Your task to perform on an android device: Open battery settings Image 0: 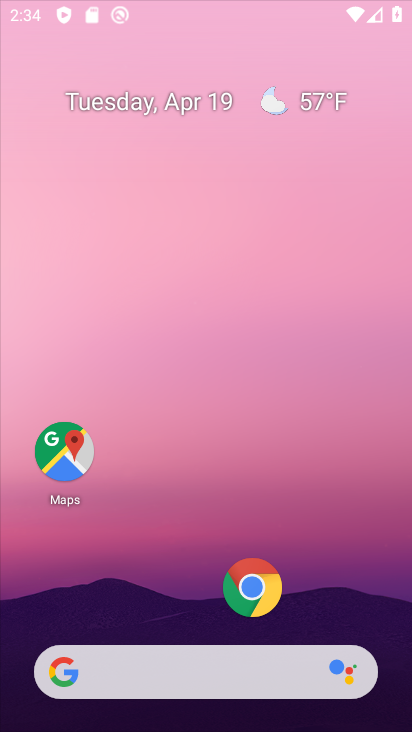
Step 0: click (246, 586)
Your task to perform on an android device: Open battery settings Image 1: 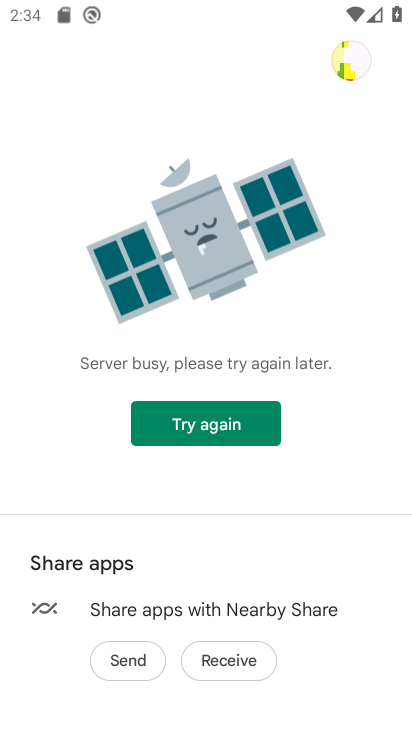
Step 1: press home button
Your task to perform on an android device: Open battery settings Image 2: 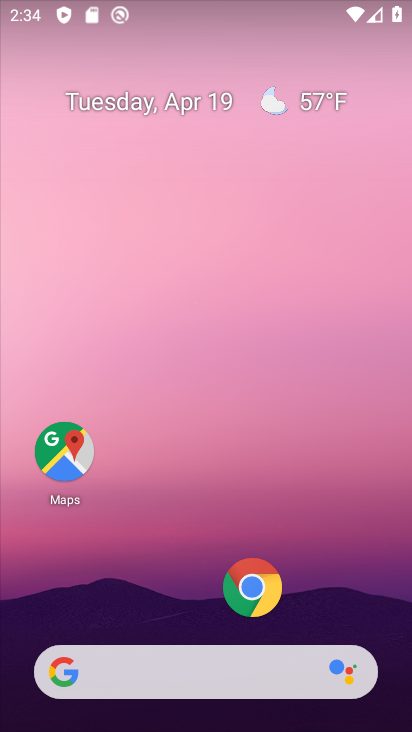
Step 2: drag from (154, 600) to (246, 155)
Your task to perform on an android device: Open battery settings Image 3: 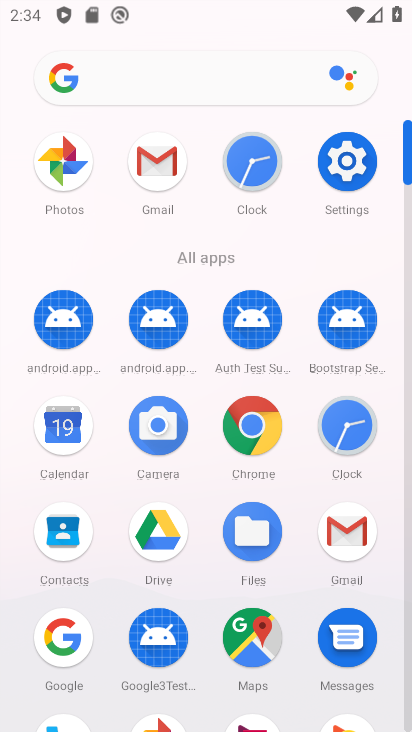
Step 3: click (352, 160)
Your task to perform on an android device: Open battery settings Image 4: 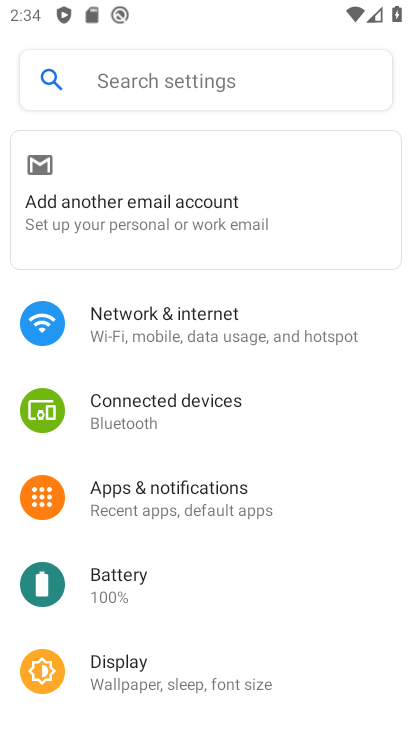
Step 4: click (143, 591)
Your task to perform on an android device: Open battery settings Image 5: 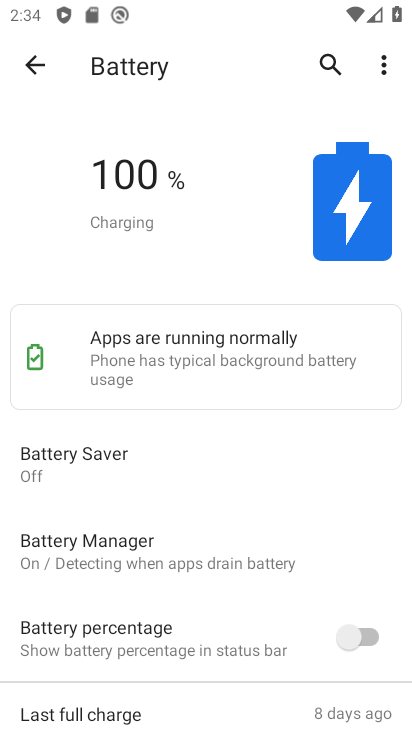
Step 5: click (388, 63)
Your task to perform on an android device: Open battery settings Image 6: 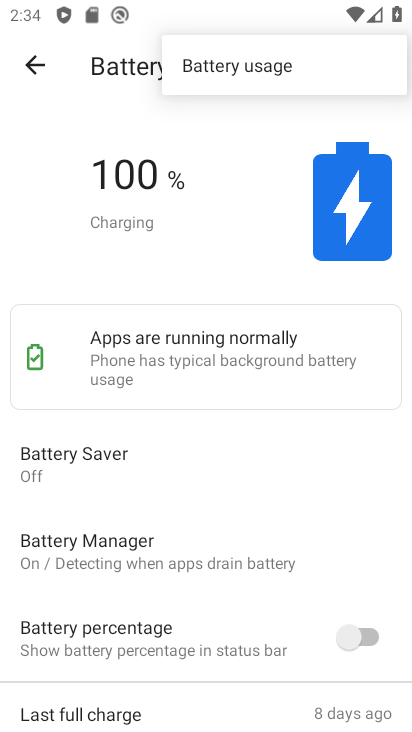
Step 6: task complete